Your task to perform on an android device: turn on translation in the chrome app Image 0: 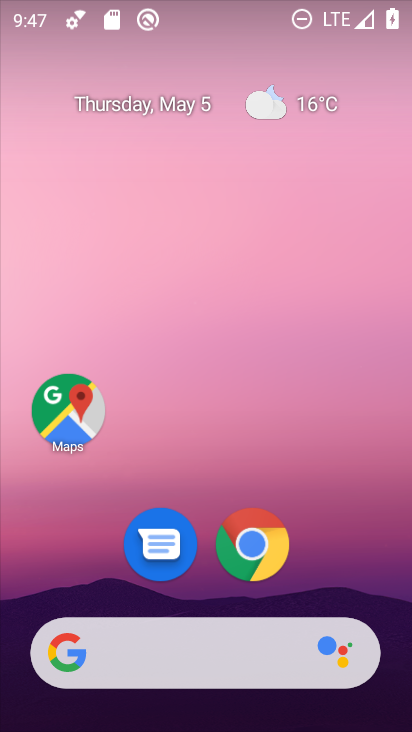
Step 0: drag from (401, 610) to (303, 95)
Your task to perform on an android device: turn on translation in the chrome app Image 1: 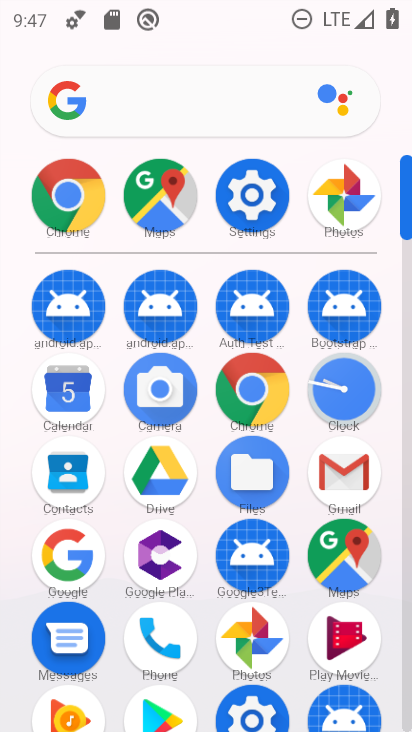
Step 1: click (244, 411)
Your task to perform on an android device: turn on translation in the chrome app Image 2: 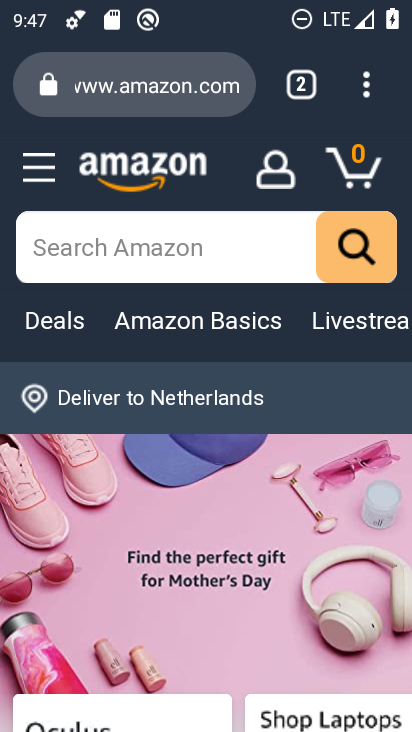
Step 2: press back button
Your task to perform on an android device: turn on translation in the chrome app Image 3: 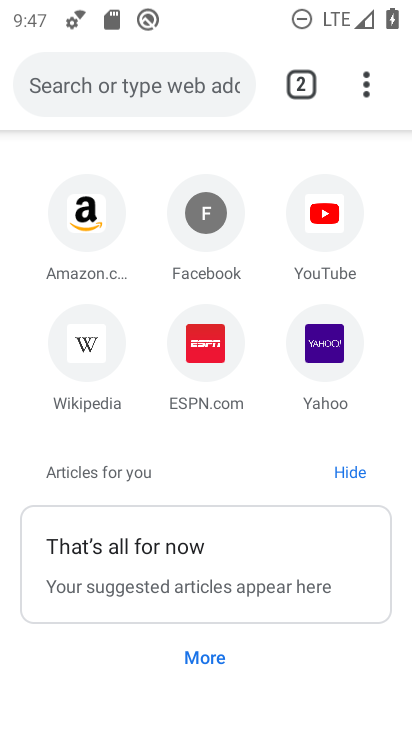
Step 3: click (366, 77)
Your task to perform on an android device: turn on translation in the chrome app Image 4: 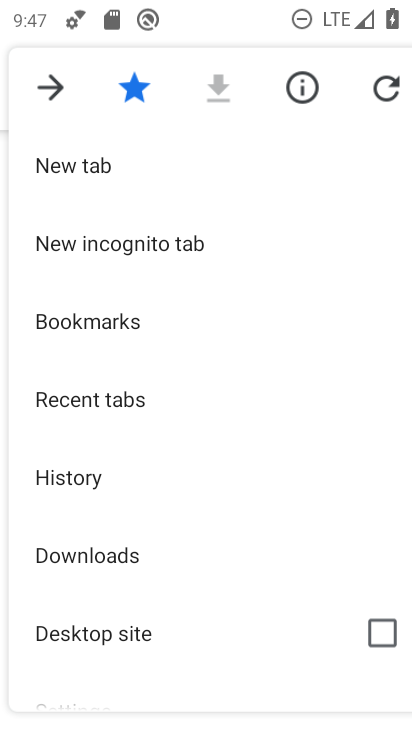
Step 4: drag from (156, 642) to (155, 152)
Your task to perform on an android device: turn on translation in the chrome app Image 5: 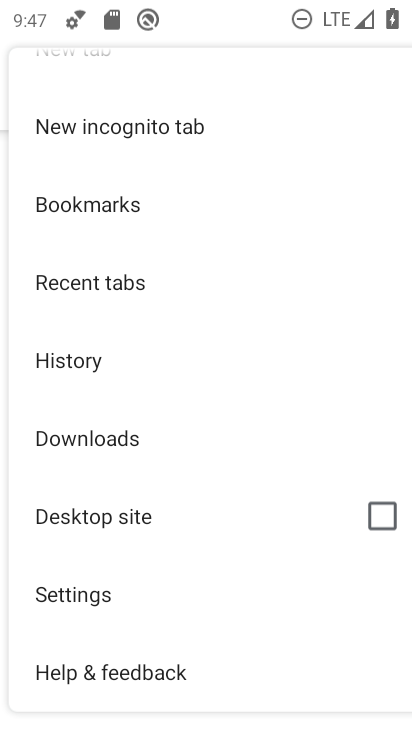
Step 5: click (111, 588)
Your task to perform on an android device: turn on translation in the chrome app Image 6: 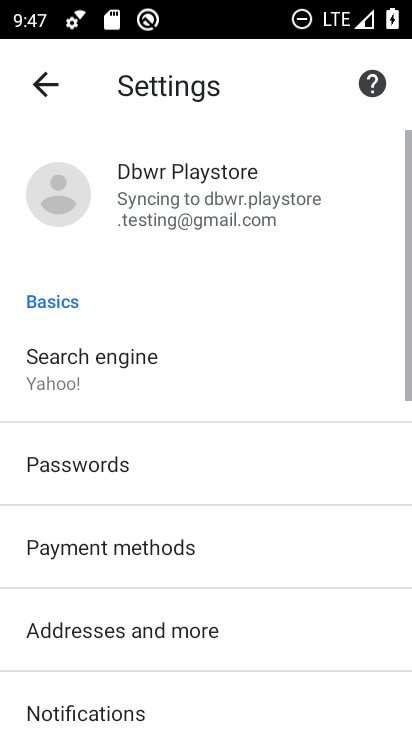
Step 6: drag from (159, 675) to (241, 176)
Your task to perform on an android device: turn on translation in the chrome app Image 7: 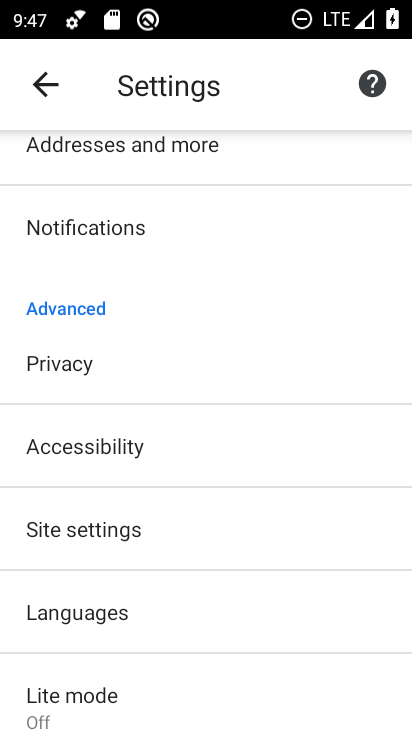
Step 7: drag from (158, 671) to (212, 300)
Your task to perform on an android device: turn on translation in the chrome app Image 8: 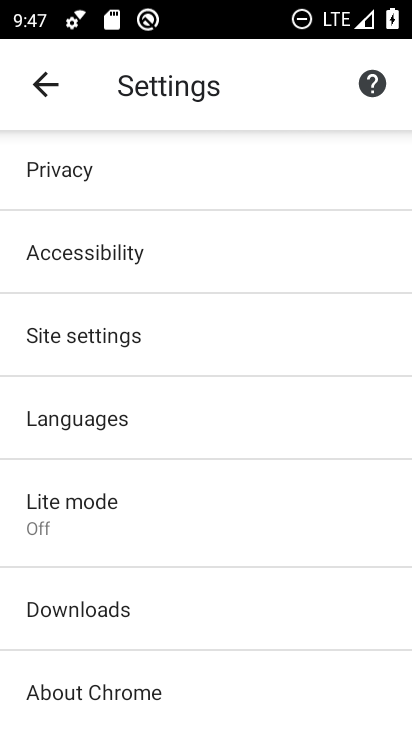
Step 8: click (139, 417)
Your task to perform on an android device: turn on translation in the chrome app Image 9: 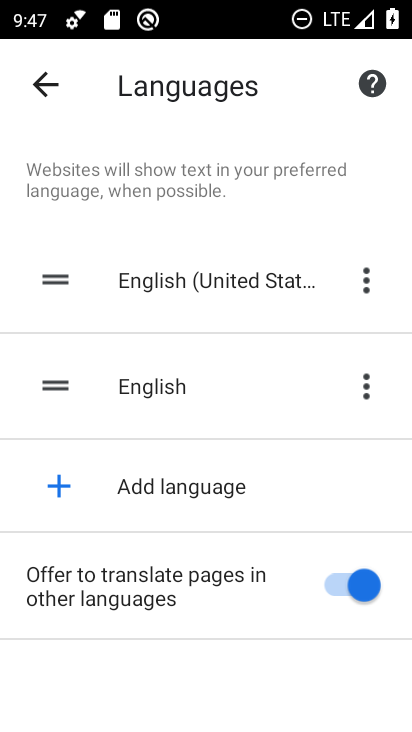
Step 9: task complete